Your task to perform on an android device: turn notification dots on Image 0: 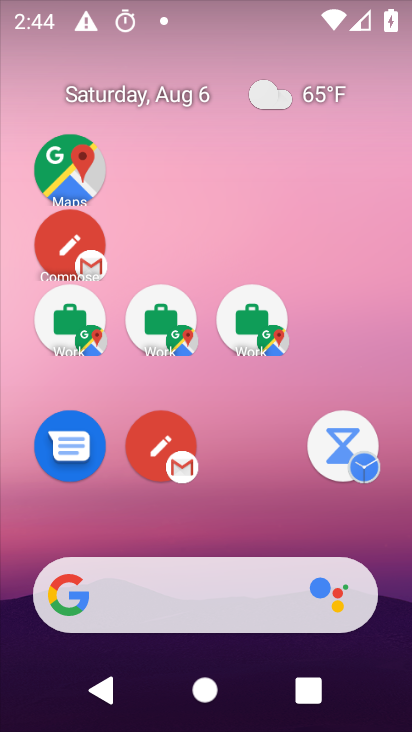
Step 0: drag from (307, 89) to (192, 104)
Your task to perform on an android device: turn notification dots on Image 1: 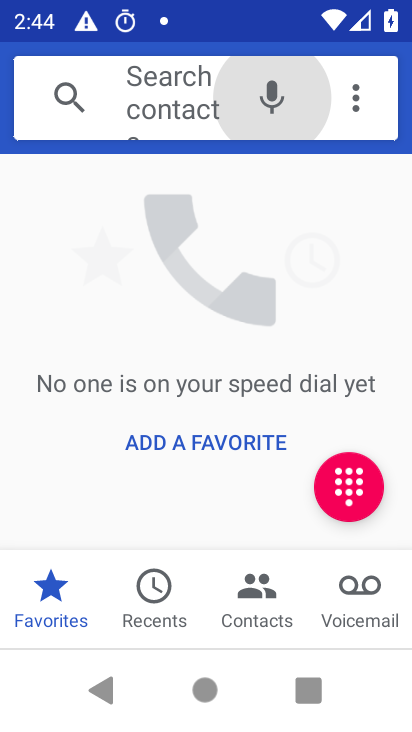
Step 1: drag from (283, 580) to (204, 139)
Your task to perform on an android device: turn notification dots on Image 2: 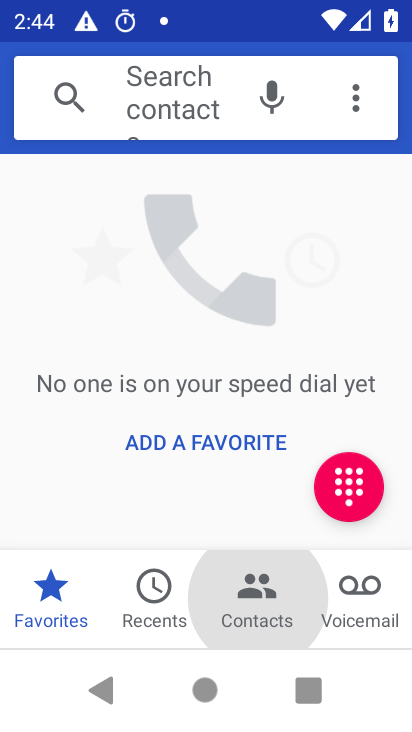
Step 2: drag from (242, 478) to (212, 174)
Your task to perform on an android device: turn notification dots on Image 3: 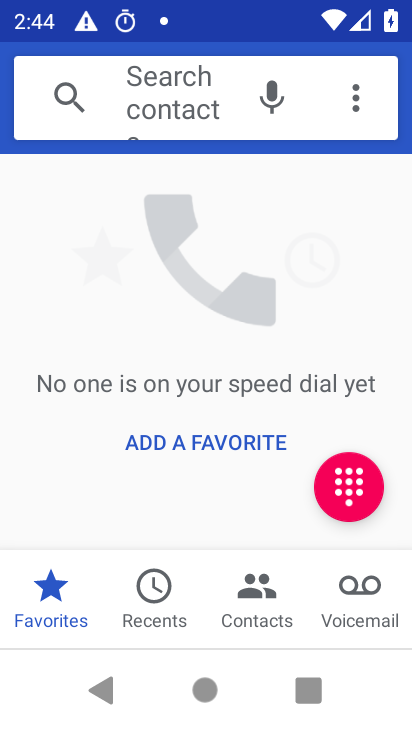
Step 3: press back button
Your task to perform on an android device: turn notification dots on Image 4: 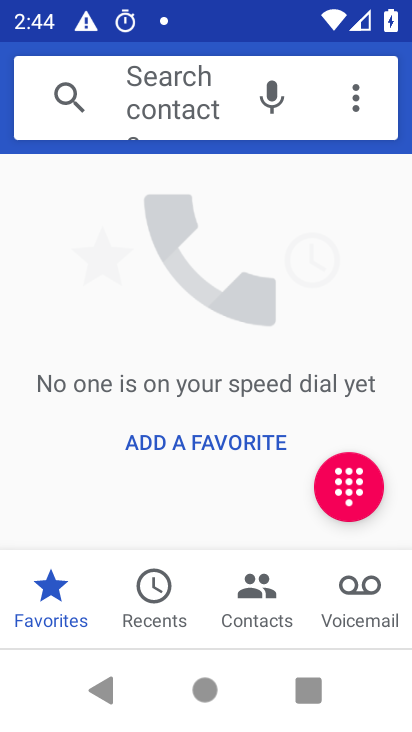
Step 4: press back button
Your task to perform on an android device: turn notification dots on Image 5: 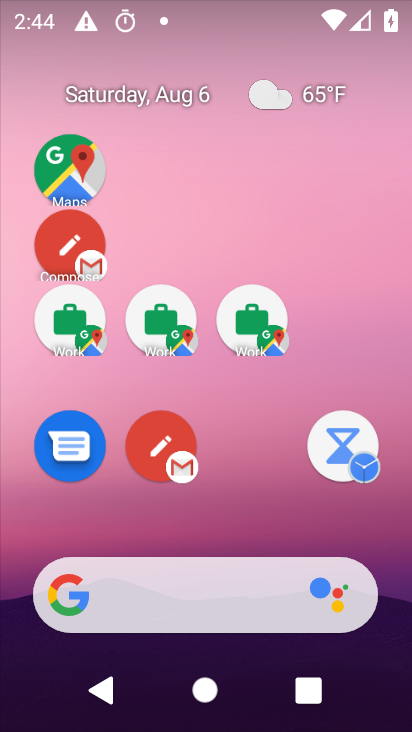
Step 5: drag from (219, 403) to (181, 185)
Your task to perform on an android device: turn notification dots on Image 6: 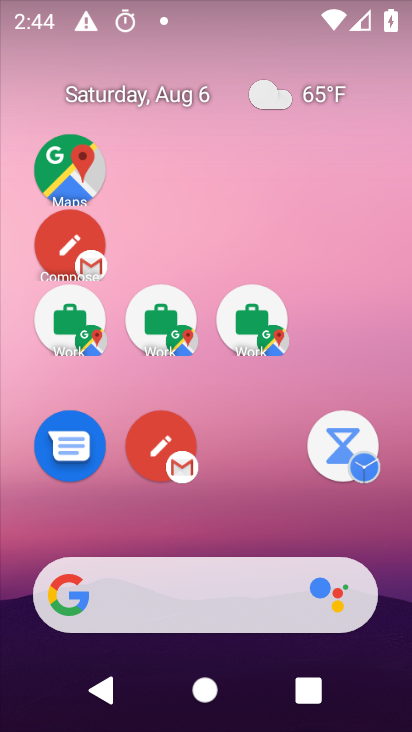
Step 6: click (207, 239)
Your task to perform on an android device: turn notification dots on Image 7: 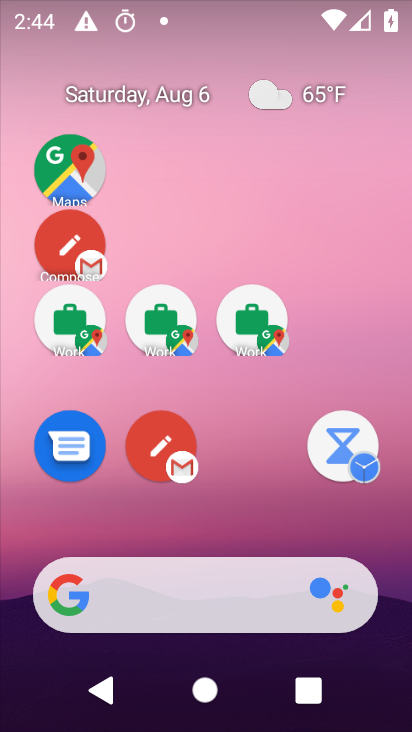
Step 7: drag from (255, 556) to (137, 195)
Your task to perform on an android device: turn notification dots on Image 8: 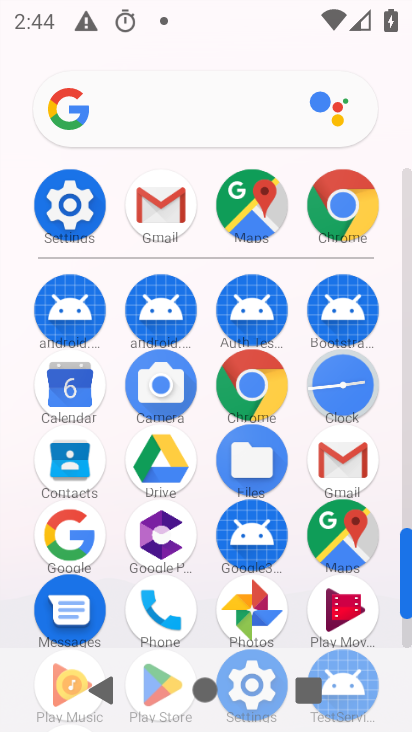
Step 8: click (58, 208)
Your task to perform on an android device: turn notification dots on Image 9: 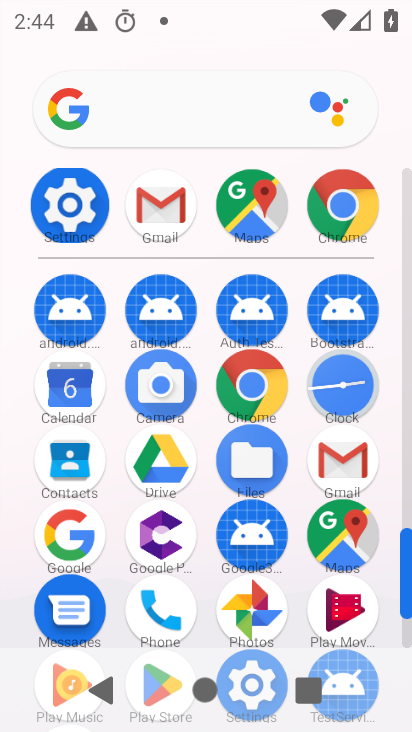
Step 9: click (60, 202)
Your task to perform on an android device: turn notification dots on Image 10: 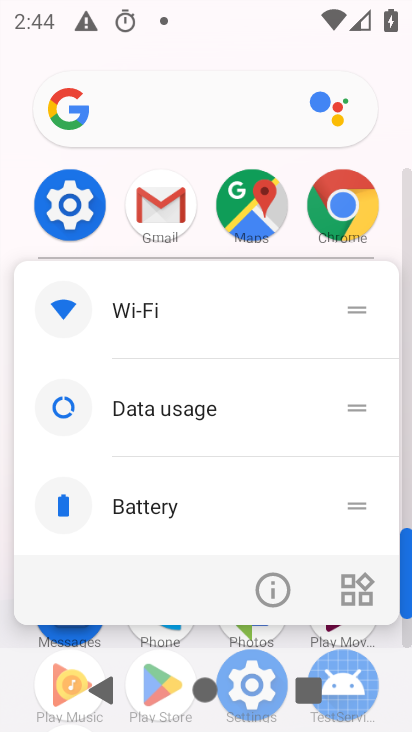
Step 10: click (60, 202)
Your task to perform on an android device: turn notification dots on Image 11: 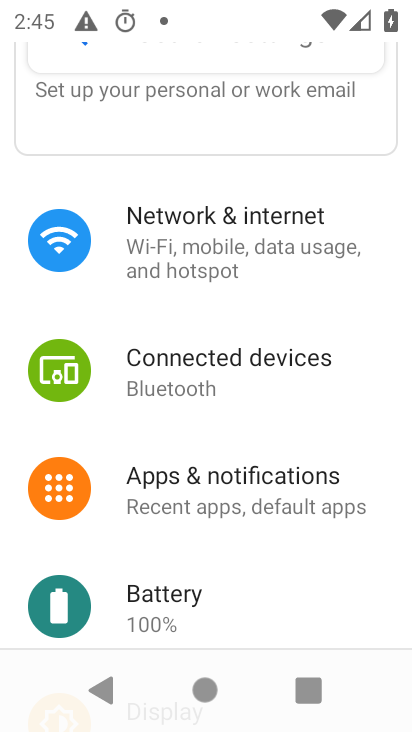
Step 11: click (219, 478)
Your task to perform on an android device: turn notification dots on Image 12: 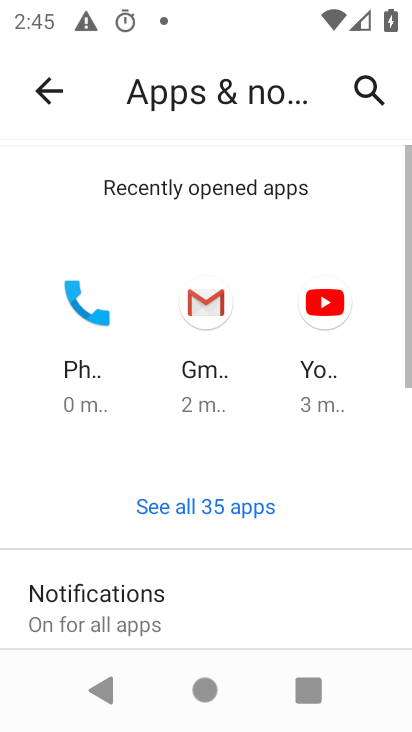
Step 12: click (124, 619)
Your task to perform on an android device: turn notification dots on Image 13: 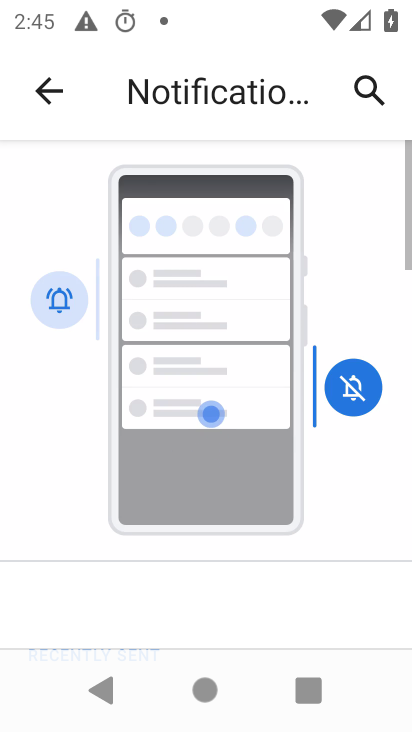
Step 13: click (178, 237)
Your task to perform on an android device: turn notification dots on Image 14: 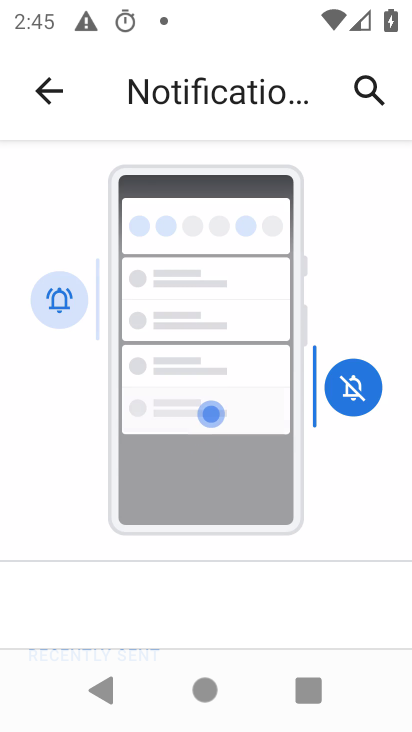
Step 14: drag from (222, 448) to (336, 190)
Your task to perform on an android device: turn notification dots on Image 15: 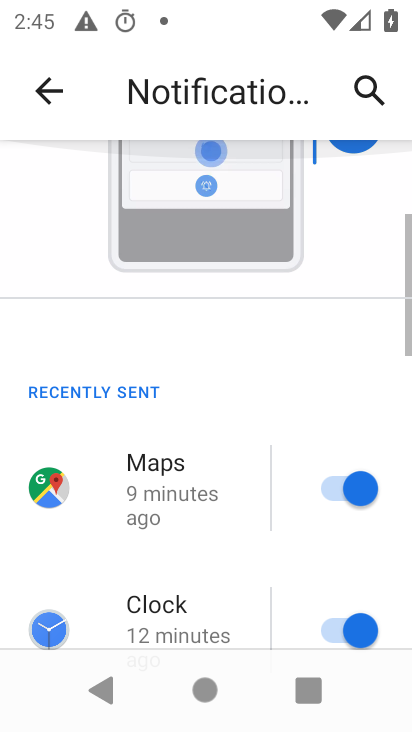
Step 15: drag from (332, 293) to (332, 192)
Your task to perform on an android device: turn notification dots on Image 16: 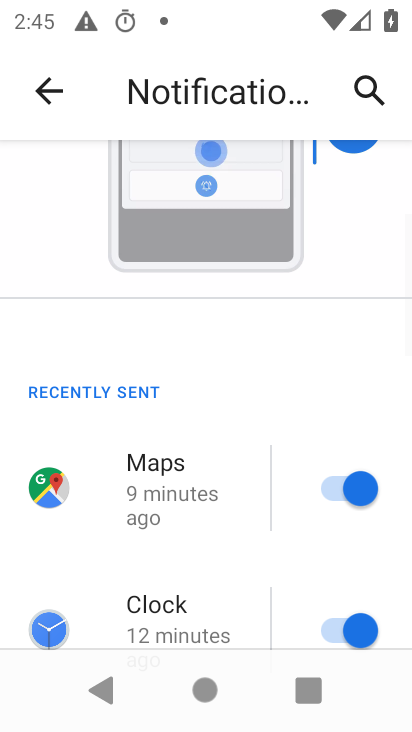
Step 16: click (339, 224)
Your task to perform on an android device: turn notification dots on Image 17: 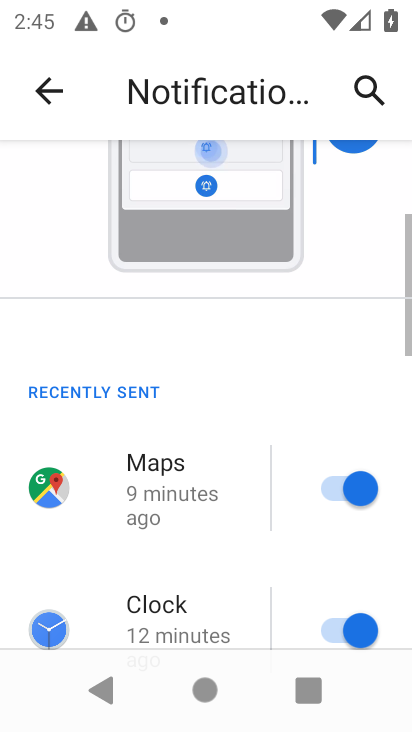
Step 17: drag from (312, 199) to (304, 110)
Your task to perform on an android device: turn notification dots on Image 18: 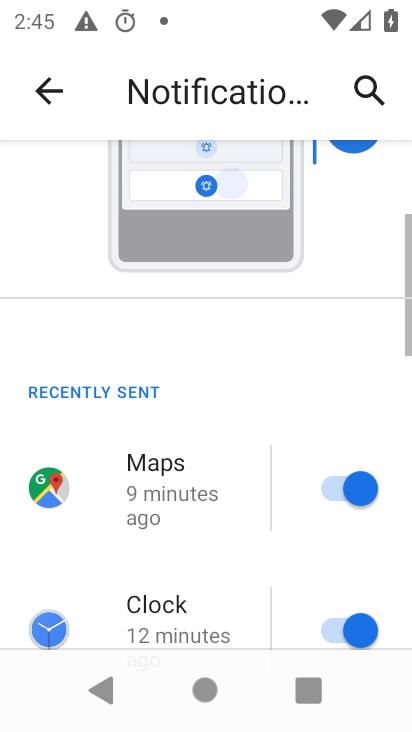
Step 18: drag from (235, 398) to (207, 171)
Your task to perform on an android device: turn notification dots on Image 19: 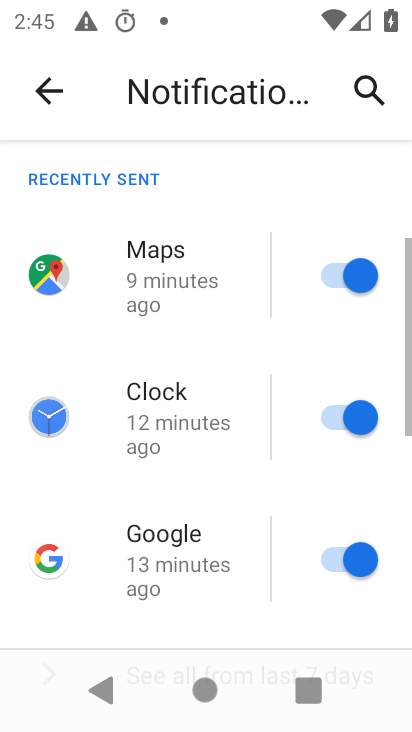
Step 19: drag from (208, 262) to (203, 222)
Your task to perform on an android device: turn notification dots on Image 20: 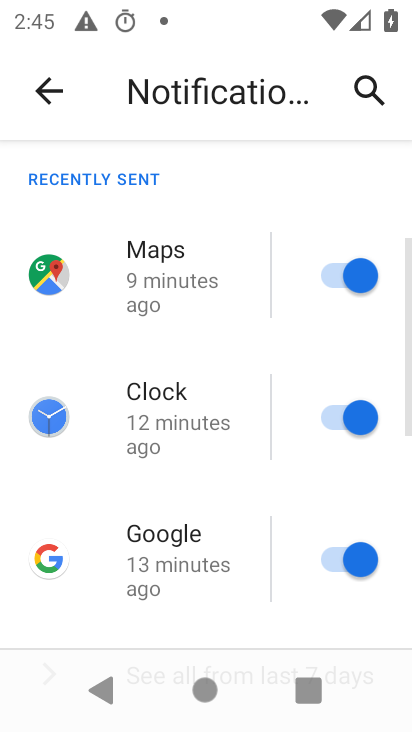
Step 20: drag from (189, 454) to (168, 313)
Your task to perform on an android device: turn notification dots on Image 21: 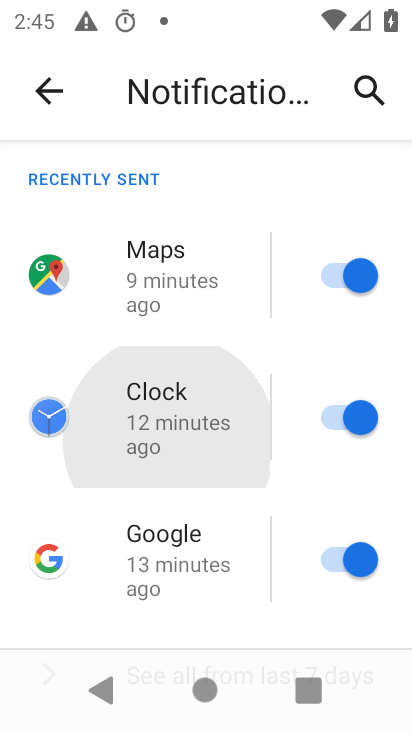
Step 21: drag from (213, 462) to (184, 231)
Your task to perform on an android device: turn notification dots on Image 22: 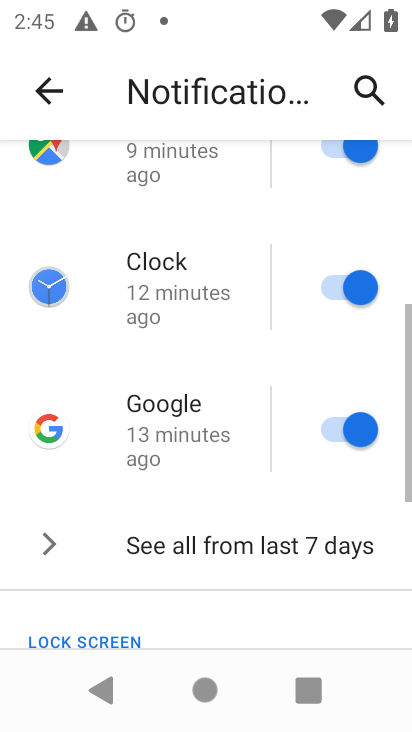
Step 22: drag from (210, 486) to (193, 348)
Your task to perform on an android device: turn notification dots on Image 23: 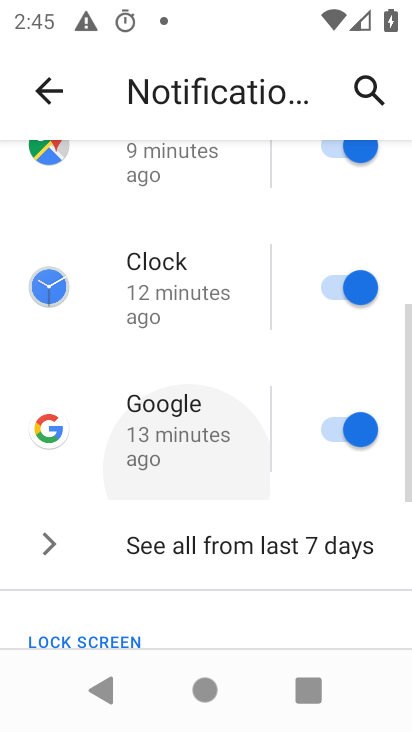
Step 23: drag from (189, 597) to (168, 206)
Your task to perform on an android device: turn notification dots on Image 24: 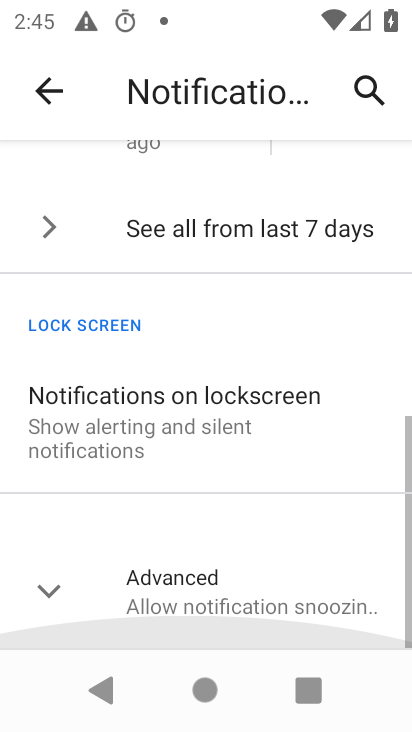
Step 24: drag from (204, 344) to (204, 254)
Your task to perform on an android device: turn notification dots on Image 25: 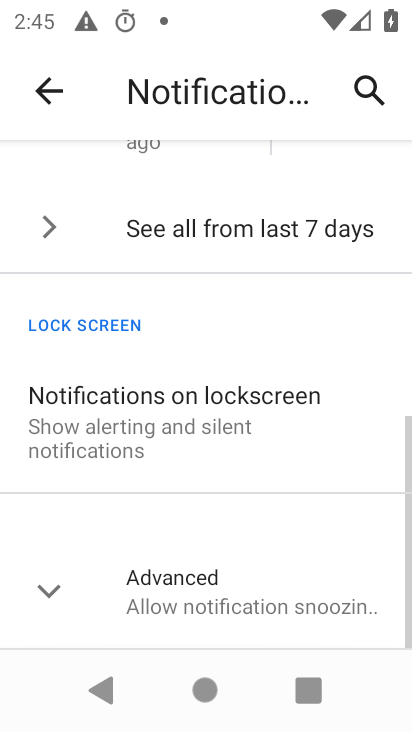
Step 25: drag from (225, 485) to (248, 239)
Your task to perform on an android device: turn notification dots on Image 26: 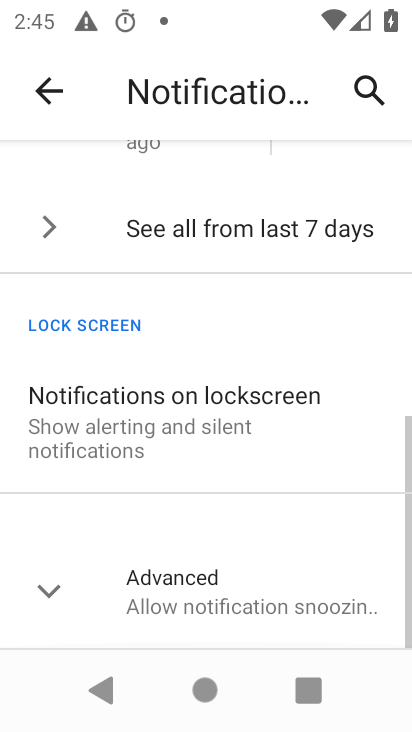
Step 26: click (183, 581)
Your task to perform on an android device: turn notification dots on Image 27: 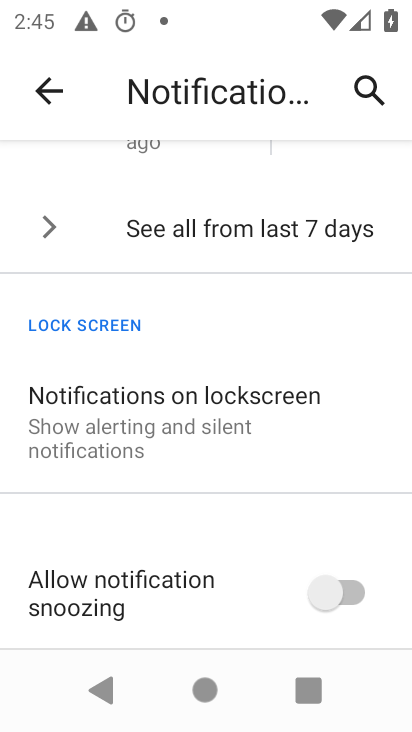
Step 27: drag from (213, 394) to (164, 140)
Your task to perform on an android device: turn notification dots on Image 28: 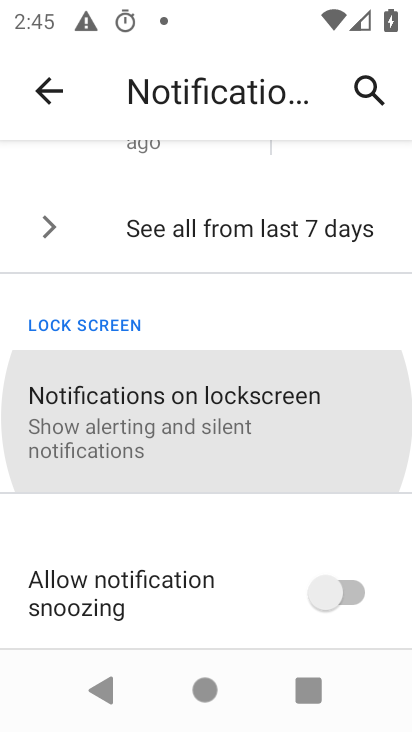
Step 28: drag from (209, 395) to (209, 254)
Your task to perform on an android device: turn notification dots on Image 29: 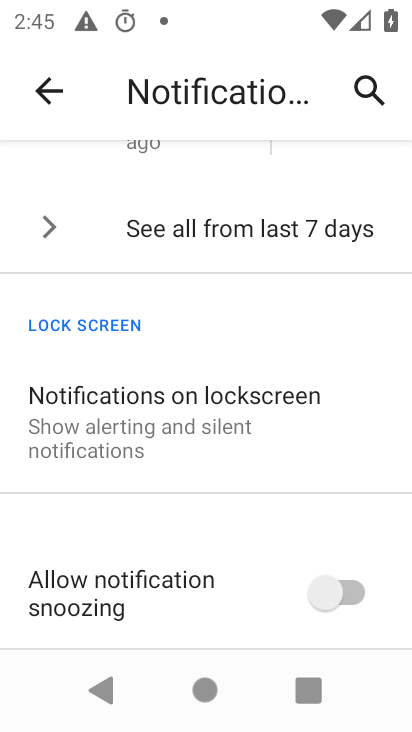
Step 29: drag from (238, 529) to (171, 249)
Your task to perform on an android device: turn notification dots on Image 30: 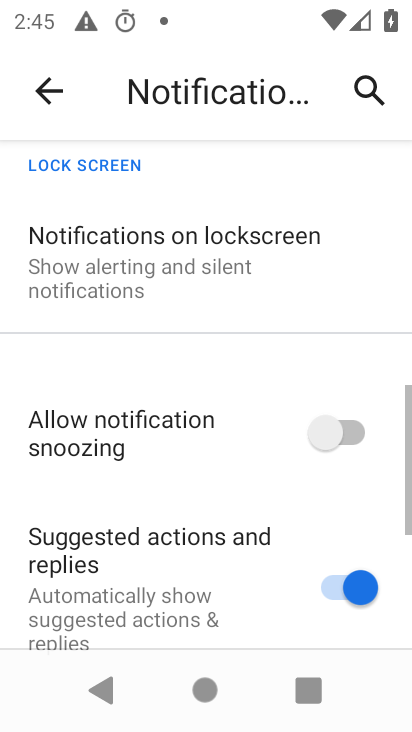
Step 30: drag from (221, 483) to (212, 273)
Your task to perform on an android device: turn notification dots on Image 31: 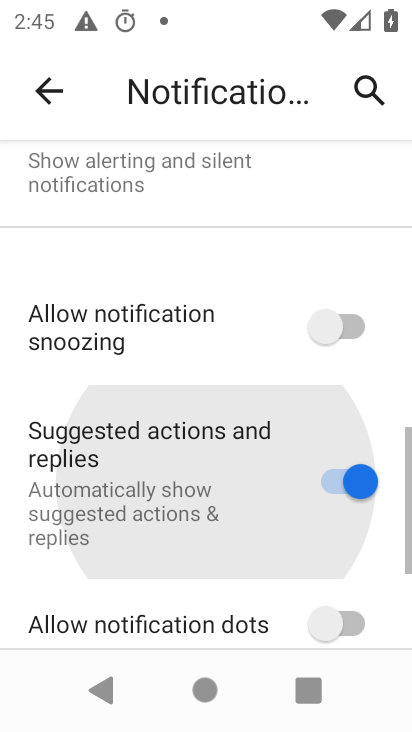
Step 31: drag from (256, 549) to (194, 240)
Your task to perform on an android device: turn notification dots on Image 32: 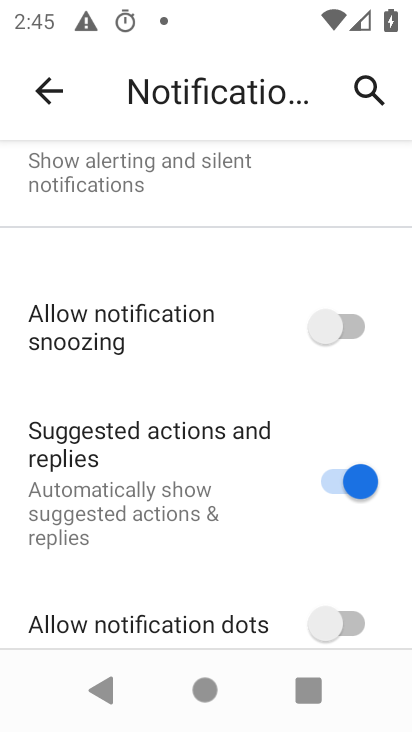
Step 32: click (339, 622)
Your task to perform on an android device: turn notification dots on Image 33: 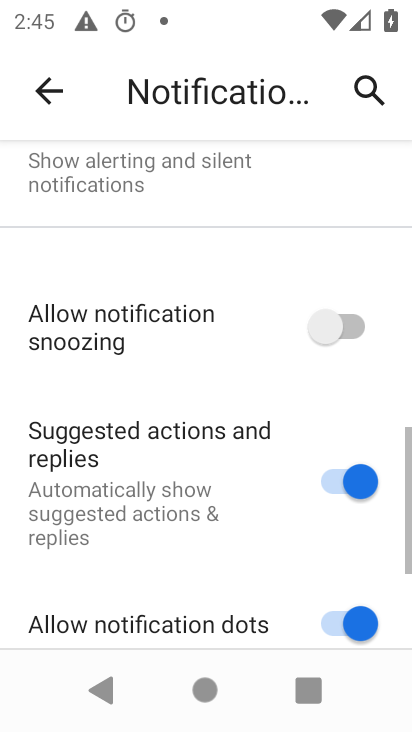
Step 33: task complete